Your task to perform on an android device: turn on showing notifications on the lock screen Image 0: 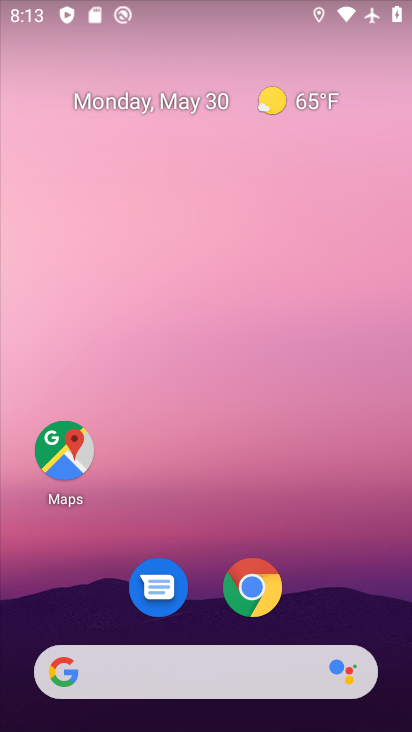
Step 0: press home button
Your task to perform on an android device: turn on showing notifications on the lock screen Image 1: 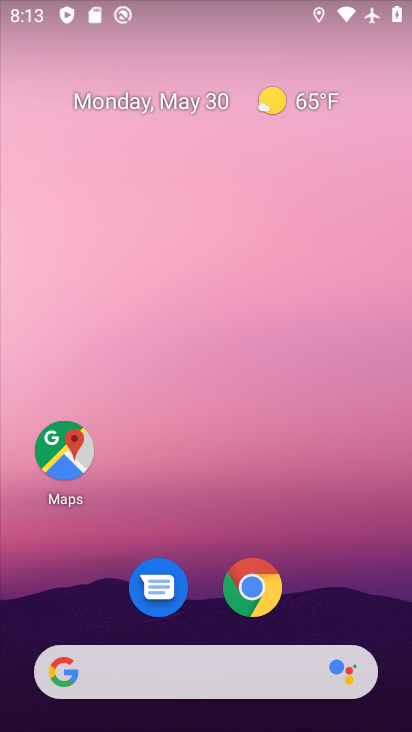
Step 1: drag from (124, 684) to (314, 99)
Your task to perform on an android device: turn on showing notifications on the lock screen Image 2: 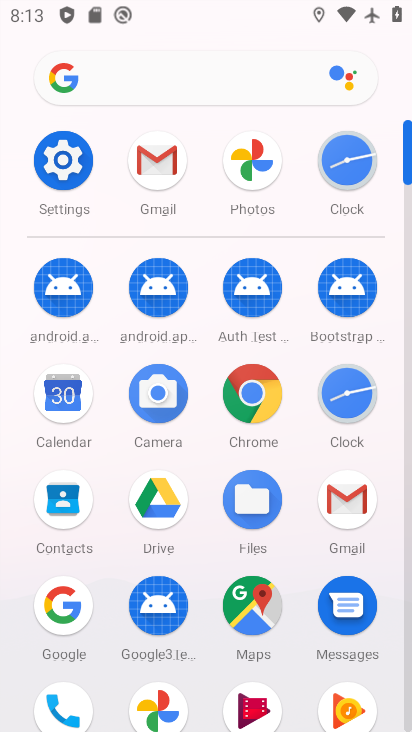
Step 2: click (61, 171)
Your task to perform on an android device: turn on showing notifications on the lock screen Image 3: 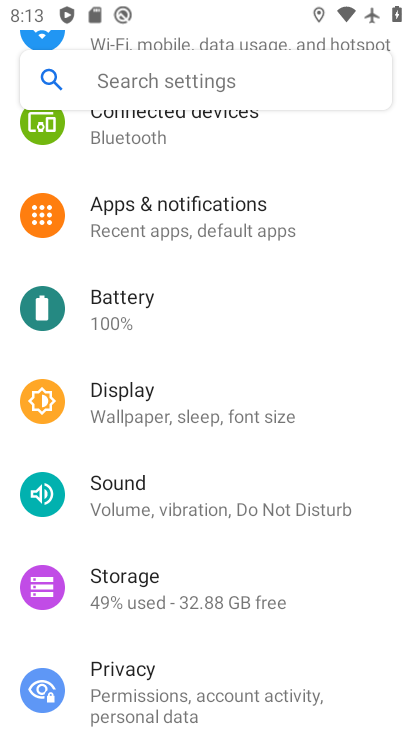
Step 3: click (217, 214)
Your task to perform on an android device: turn on showing notifications on the lock screen Image 4: 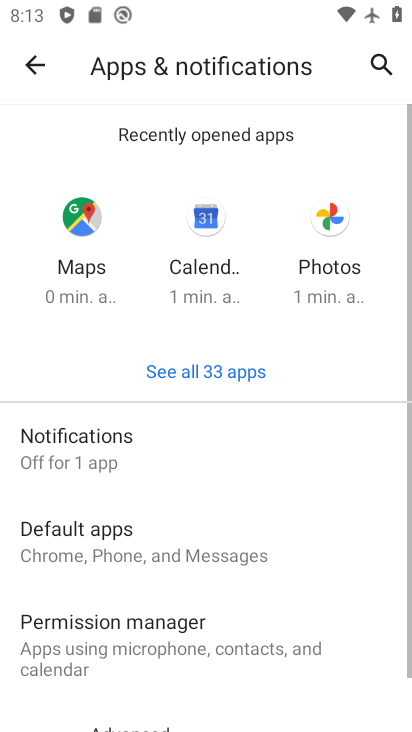
Step 4: click (108, 437)
Your task to perform on an android device: turn on showing notifications on the lock screen Image 5: 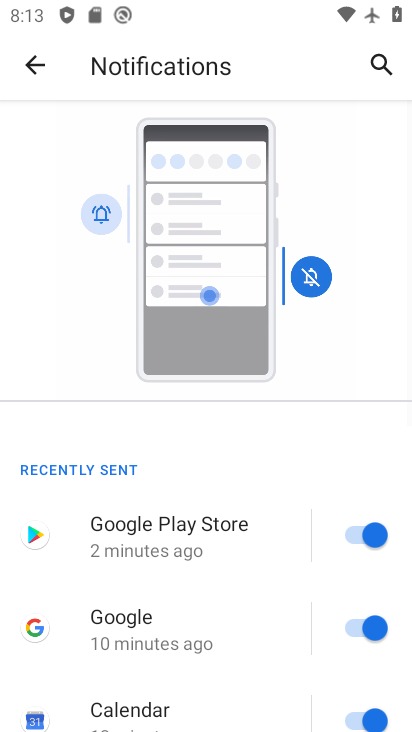
Step 5: drag from (295, 684) to (365, 98)
Your task to perform on an android device: turn on showing notifications on the lock screen Image 6: 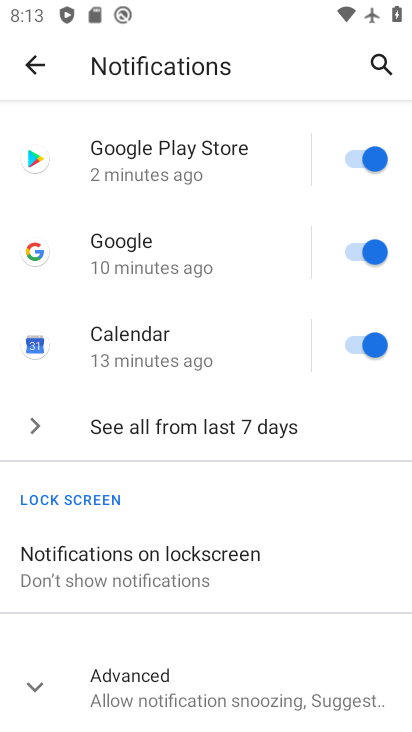
Step 6: click (125, 559)
Your task to perform on an android device: turn on showing notifications on the lock screen Image 7: 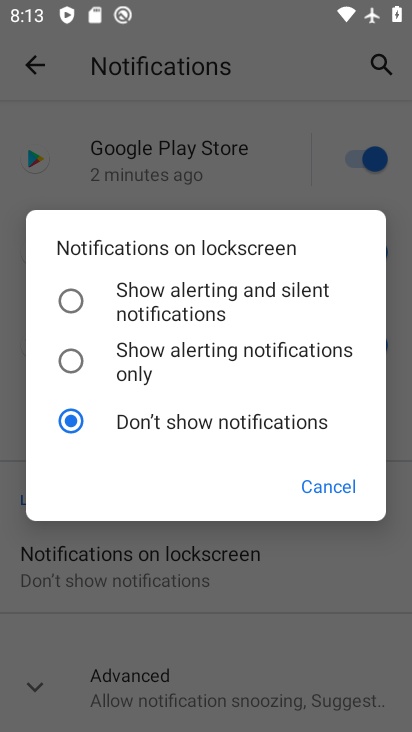
Step 7: click (72, 302)
Your task to perform on an android device: turn on showing notifications on the lock screen Image 8: 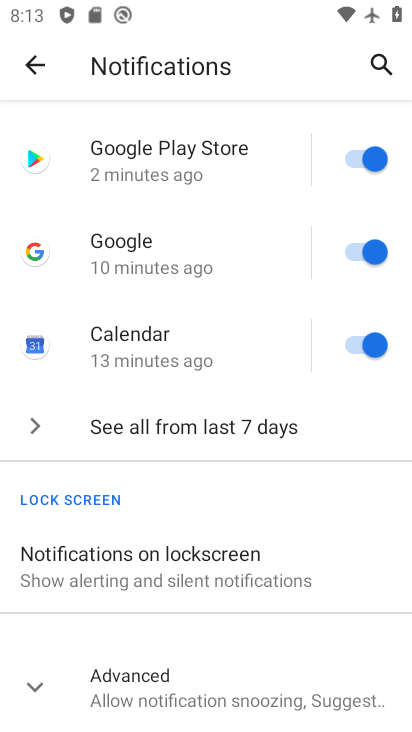
Step 8: task complete